Your task to perform on an android device: Open the stopwatch Image 0: 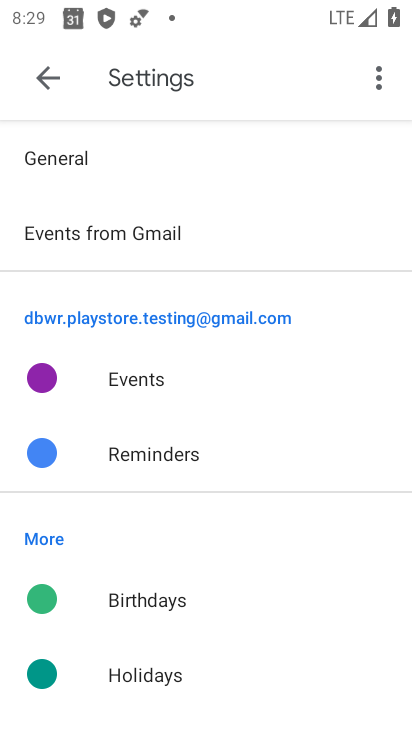
Step 0: press home button
Your task to perform on an android device: Open the stopwatch Image 1: 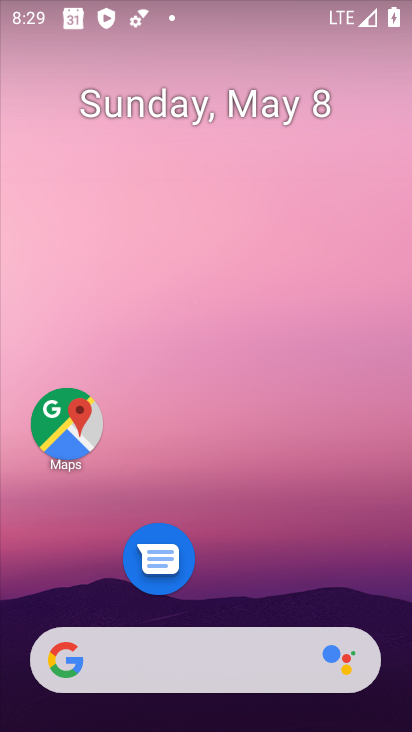
Step 1: drag from (307, 641) to (327, 136)
Your task to perform on an android device: Open the stopwatch Image 2: 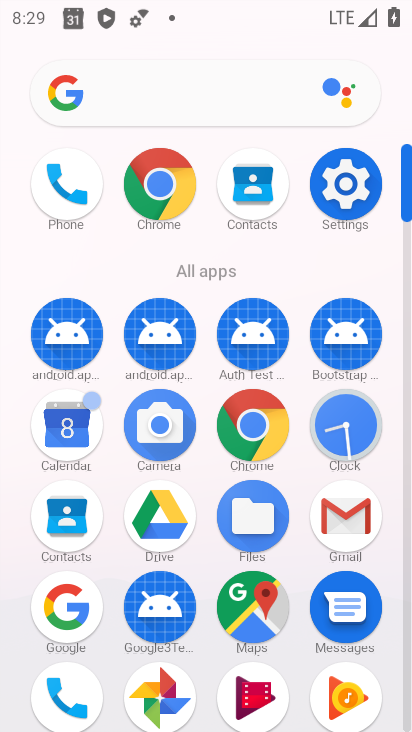
Step 2: click (355, 425)
Your task to perform on an android device: Open the stopwatch Image 3: 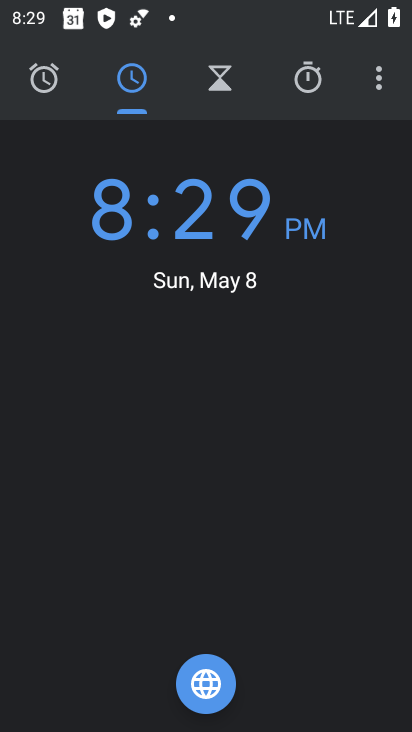
Step 3: click (313, 89)
Your task to perform on an android device: Open the stopwatch Image 4: 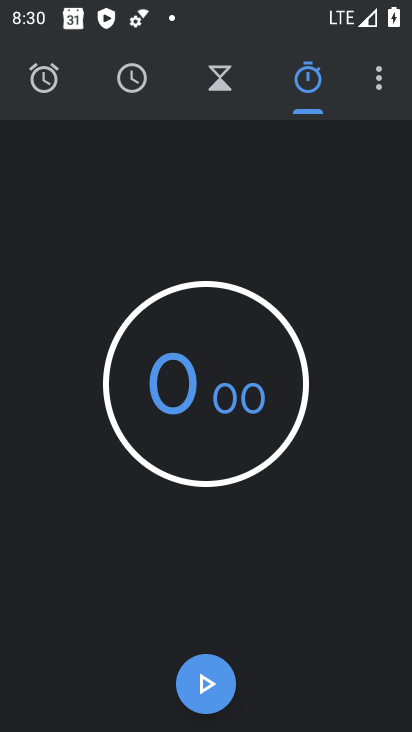
Step 4: click (205, 697)
Your task to perform on an android device: Open the stopwatch Image 5: 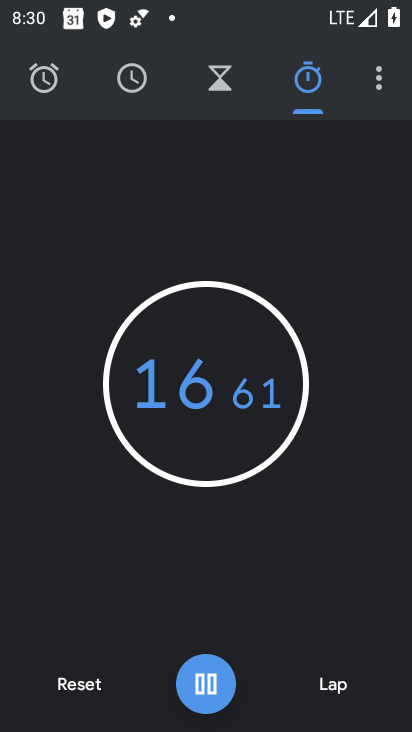
Step 5: task complete